Your task to perform on an android device: turn off improve location accuracy Image 0: 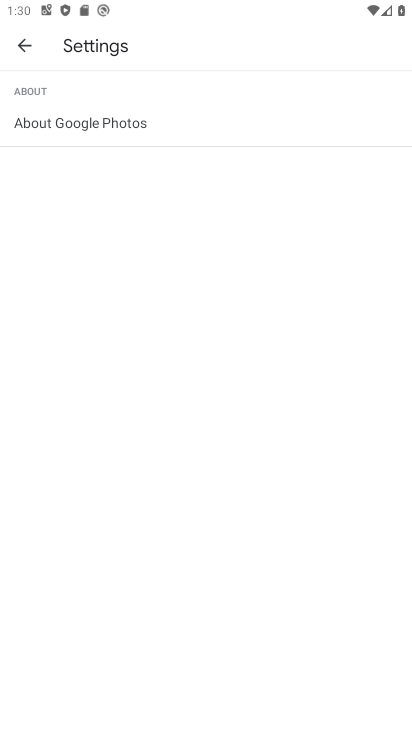
Step 0: press home button
Your task to perform on an android device: turn off improve location accuracy Image 1: 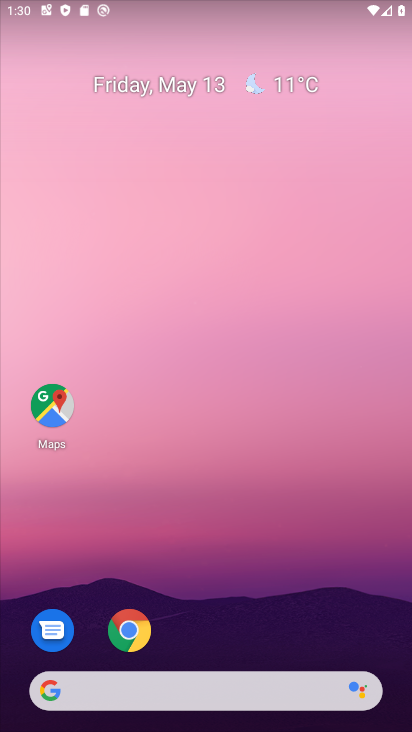
Step 1: drag from (280, 627) to (271, 30)
Your task to perform on an android device: turn off improve location accuracy Image 2: 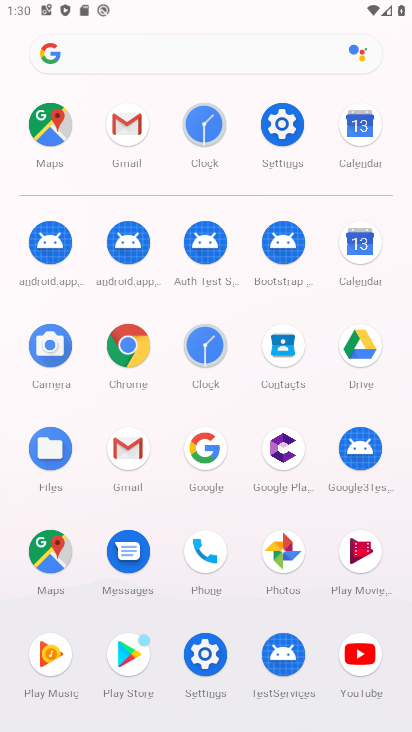
Step 2: click (282, 131)
Your task to perform on an android device: turn off improve location accuracy Image 3: 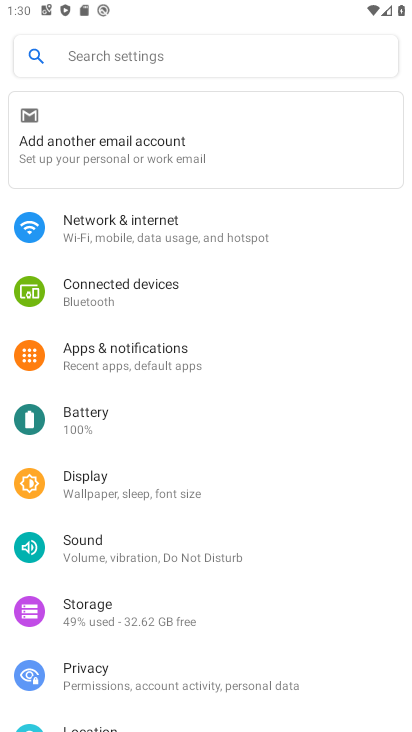
Step 3: drag from (336, 612) to (330, 331)
Your task to perform on an android device: turn off improve location accuracy Image 4: 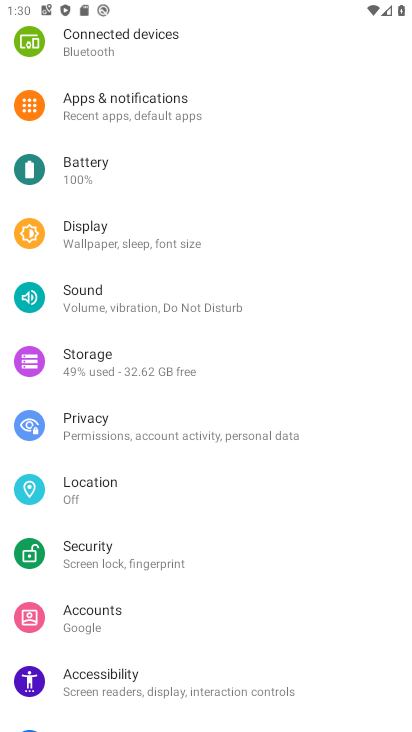
Step 4: click (105, 488)
Your task to perform on an android device: turn off improve location accuracy Image 5: 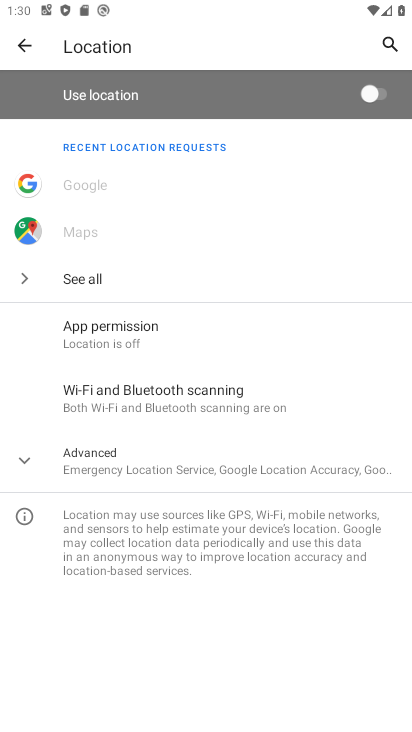
Step 5: click (26, 464)
Your task to perform on an android device: turn off improve location accuracy Image 6: 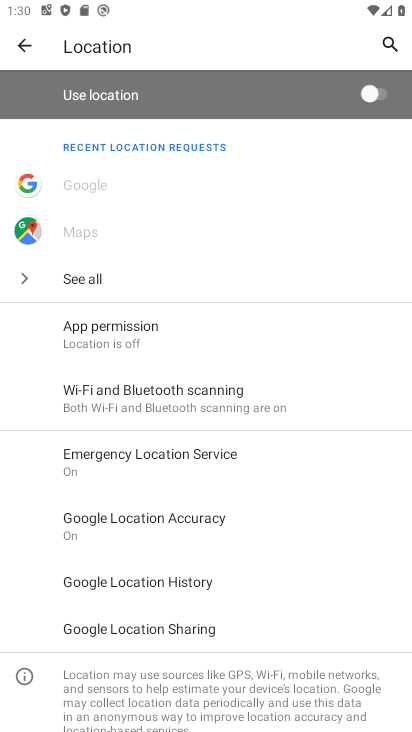
Step 6: click (138, 515)
Your task to perform on an android device: turn off improve location accuracy Image 7: 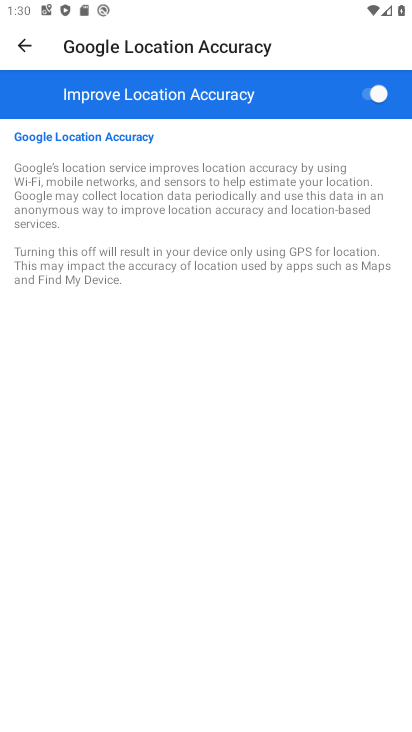
Step 7: click (377, 101)
Your task to perform on an android device: turn off improve location accuracy Image 8: 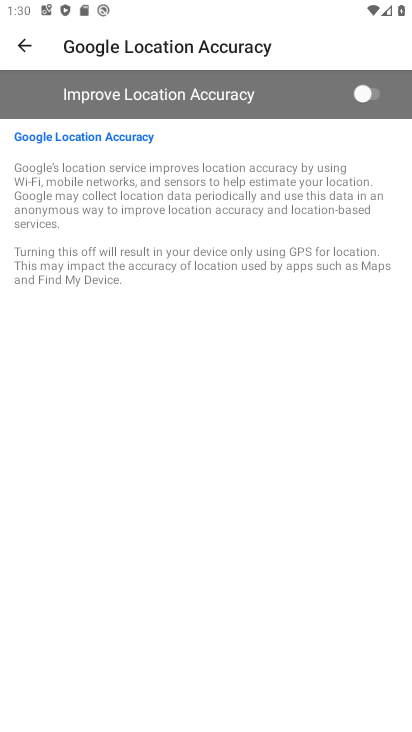
Step 8: task complete